Your task to perform on an android device: turn off location Image 0: 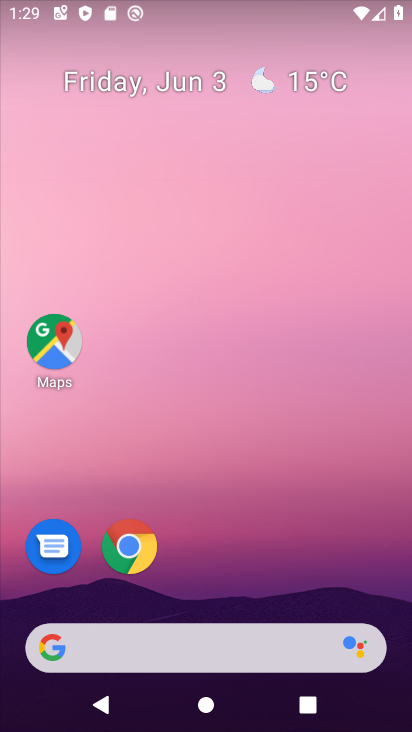
Step 0: drag from (285, 556) to (344, 11)
Your task to perform on an android device: turn off location Image 1: 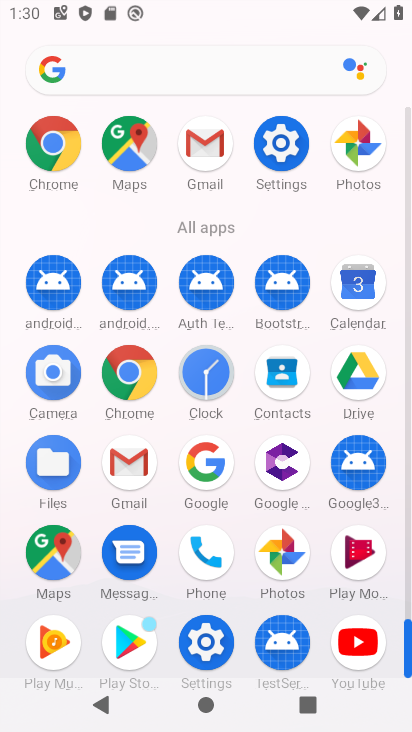
Step 1: click (271, 178)
Your task to perform on an android device: turn off location Image 2: 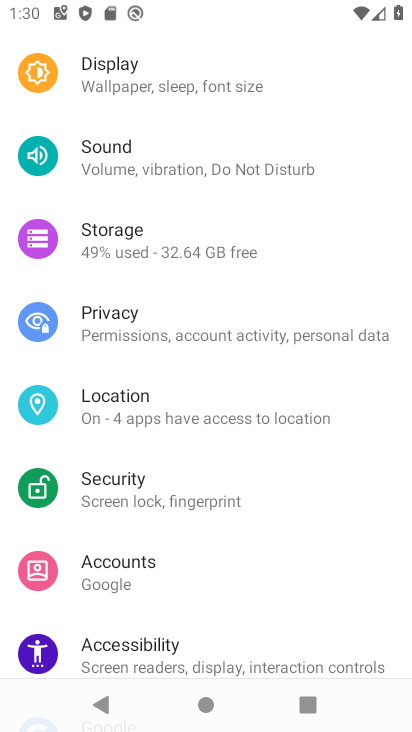
Step 2: click (134, 429)
Your task to perform on an android device: turn off location Image 3: 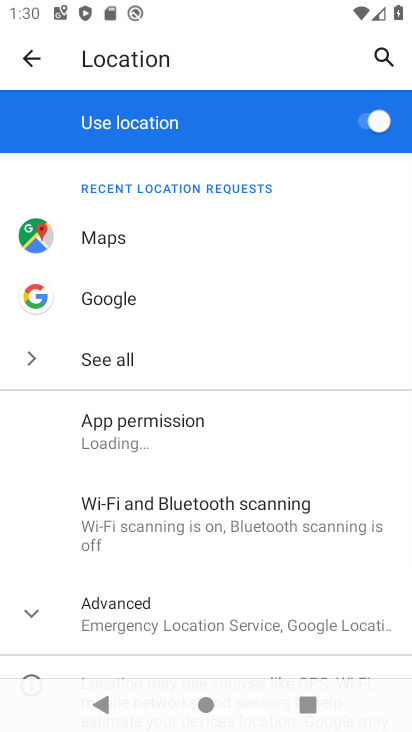
Step 3: click (384, 123)
Your task to perform on an android device: turn off location Image 4: 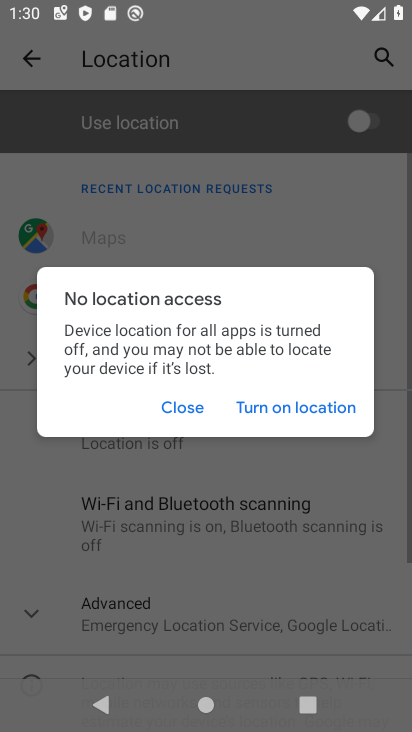
Step 4: task complete